Your task to perform on an android device: Go to settings Image 0: 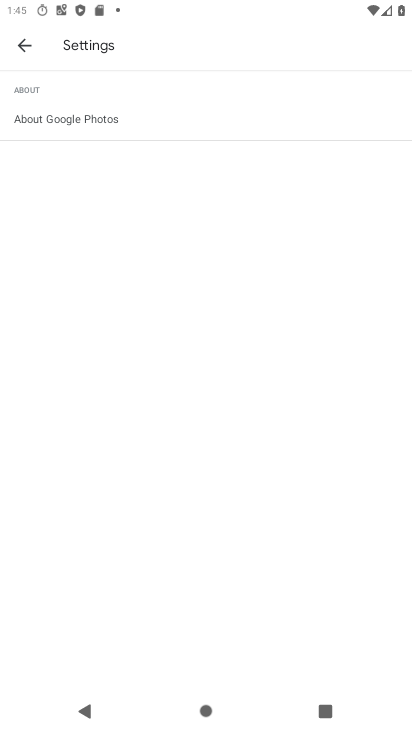
Step 0: press home button
Your task to perform on an android device: Go to settings Image 1: 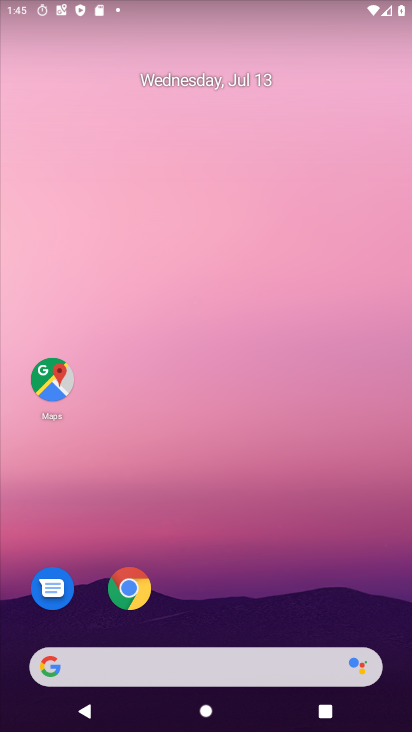
Step 1: drag from (200, 622) to (246, 404)
Your task to perform on an android device: Go to settings Image 2: 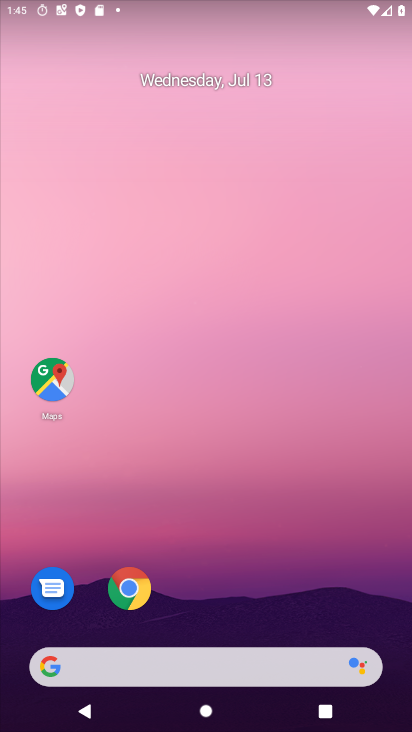
Step 2: drag from (236, 571) to (309, 172)
Your task to perform on an android device: Go to settings Image 3: 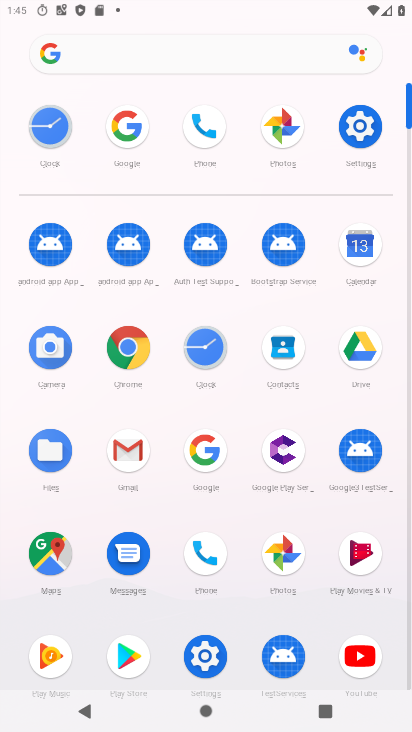
Step 3: click (369, 135)
Your task to perform on an android device: Go to settings Image 4: 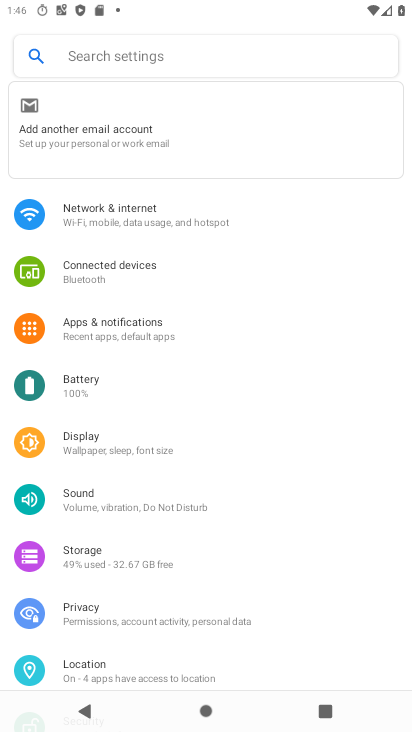
Step 4: task complete